Your task to perform on an android device: Open Youtube and go to "Your channel" Image 0: 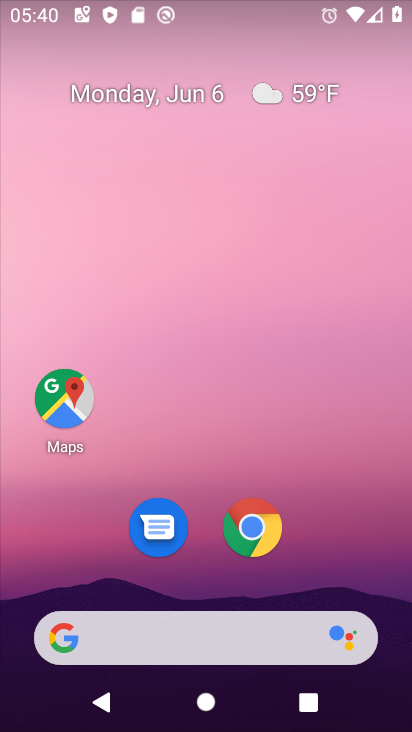
Step 0: drag from (392, 690) to (374, 0)
Your task to perform on an android device: Open Youtube and go to "Your channel" Image 1: 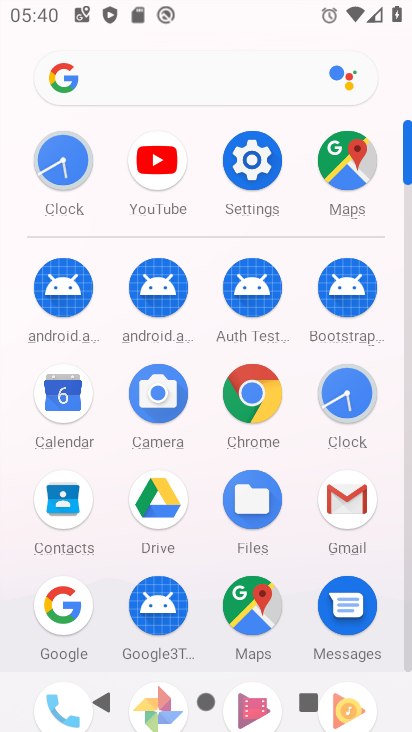
Step 1: click (159, 174)
Your task to perform on an android device: Open Youtube and go to "Your channel" Image 2: 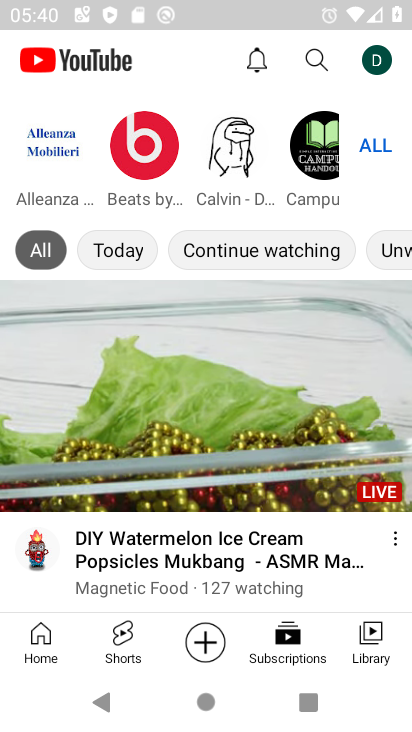
Step 2: task complete